Your task to perform on an android device: Open Youtube and go to "Your channel" Image 0: 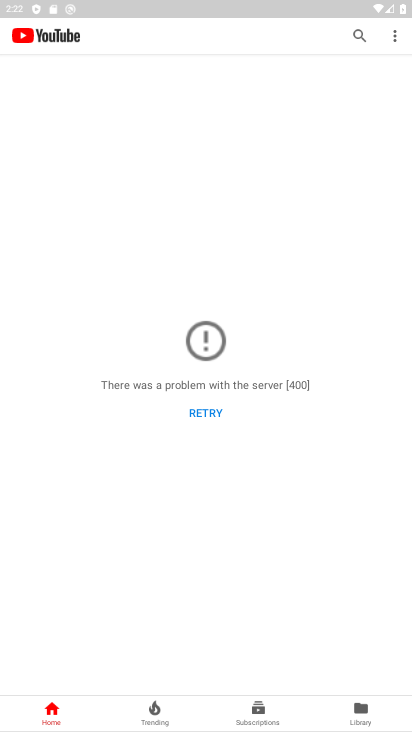
Step 0: press home button
Your task to perform on an android device: Open Youtube and go to "Your channel" Image 1: 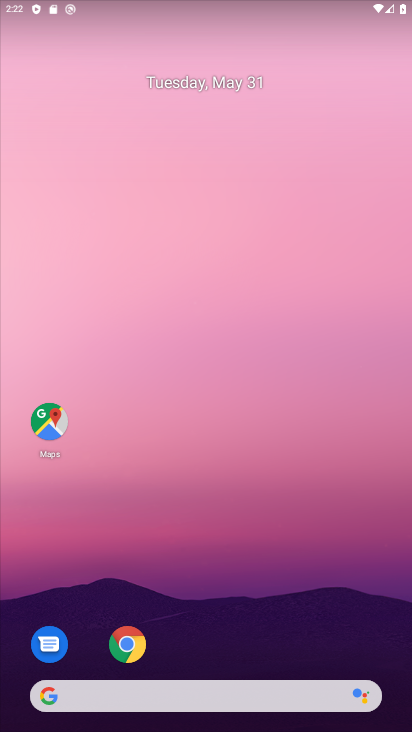
Step 1: drag from (280, 661) to (245, 88)
Your task to perform on an android device: Open Youtube and go to "Your channel" Image 2: 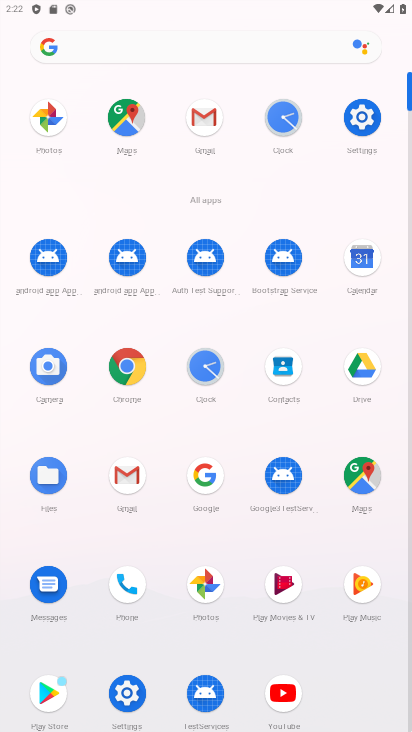
Step 2: click (274, 693)
Your task to perform on an android device: Open Youtube and go to "Your channel" Image 3: 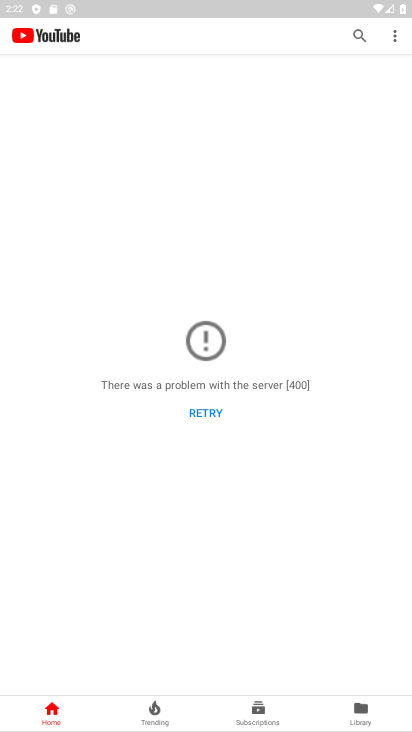
Step 3: click (392, 36)
Your task to perform on an android device: Open Youtube and go to "Your channel" Image 4: 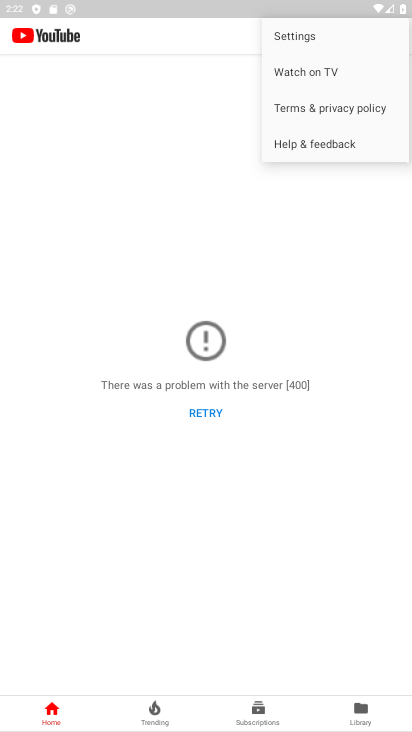
Step 4: click (206, 411)
Your task to perform on an android device: Open Youtube and go to "Your channel" Image 5: 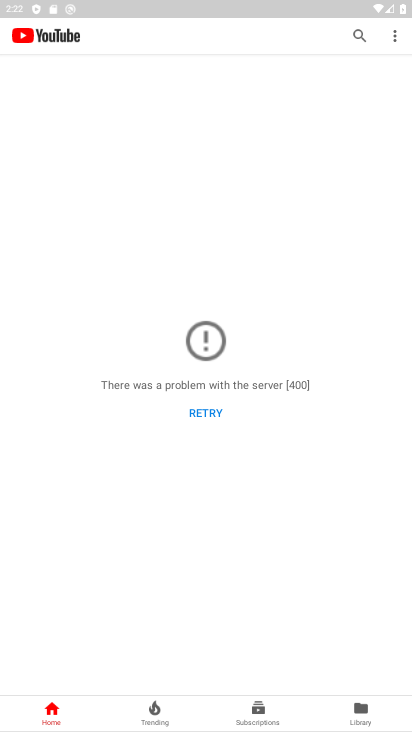
Step 5: drag from (231, 46) to (207, 424)
Your task to perform on an android device: Open Youtube and go to "Your channel" Image 6: 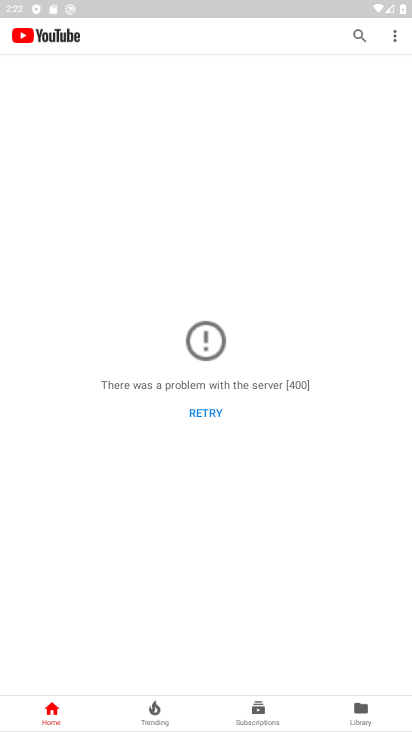
Step 6: drag from (216, 9) to (188, 586)
Your task to perform on an android device: Open Youtube and go to "Your channel" Image 7: 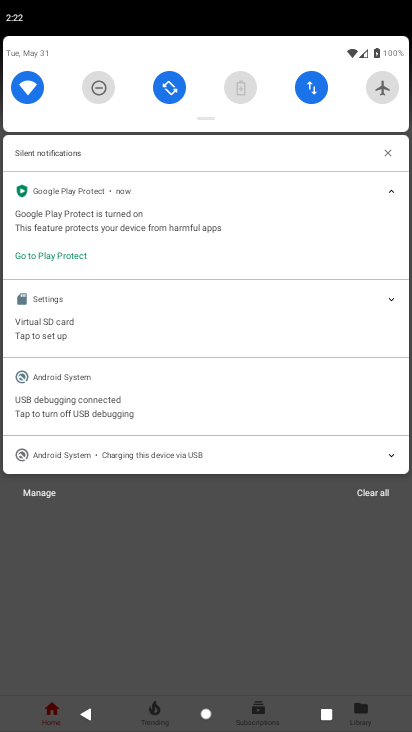
Step 7: drag from (188, 615) to (222, 97)
Your task to perform on an android device: Open Youtube and go to "Your channel" Image 8: 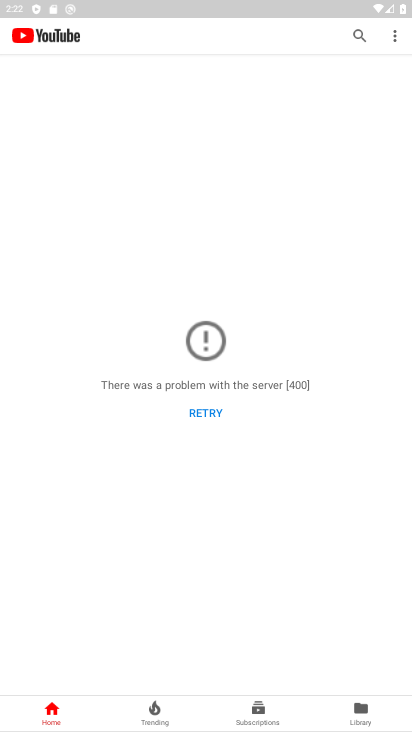
Step 8: click (52, 721)
Your task to perform on an android device: Open Youtube and go to "Your channel" Image 9: 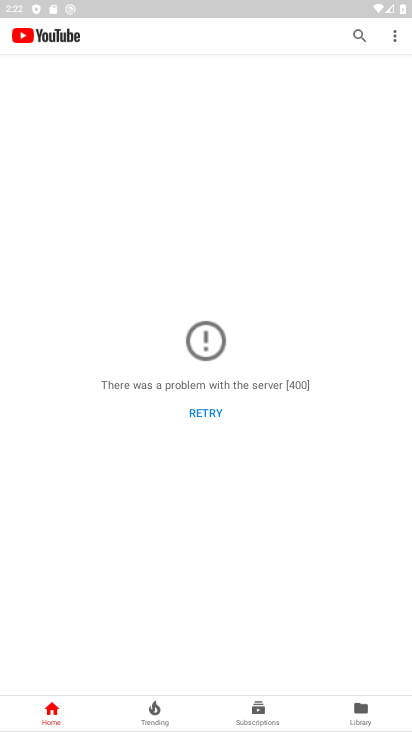
Step 9: click (363, 712)
Your task to perform on an android device: Open Youtube and go to "Your channel" Image 10: 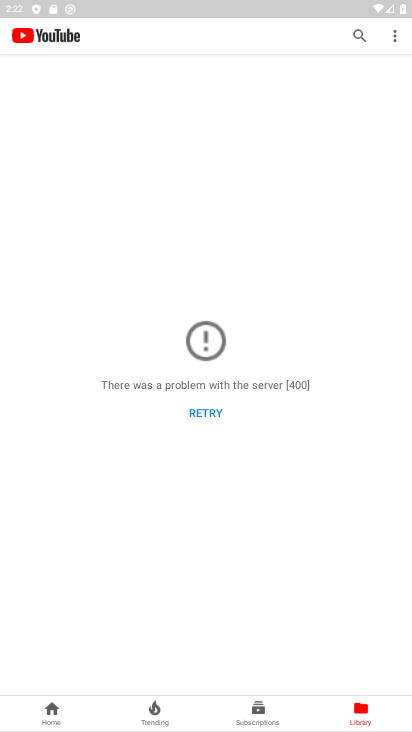
Step 10: click (357, 716)
Your task to perform on an android device: Open Youtube and go to "Your channel" Image 11: 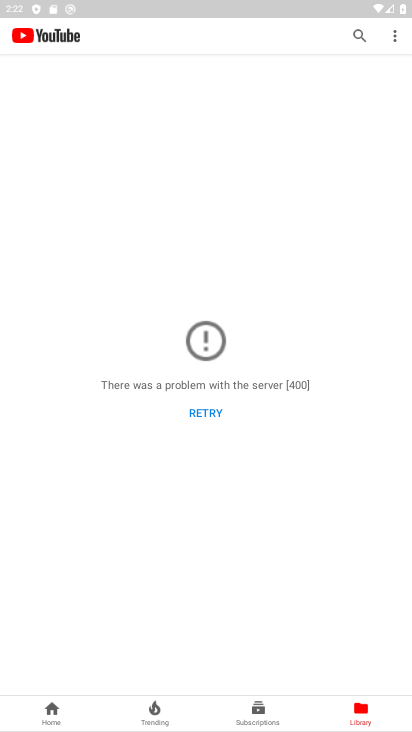
Step 11: click (194, 415)
Your task to perform on an android device: Open Youtube and go to "Your channel" Image 12: 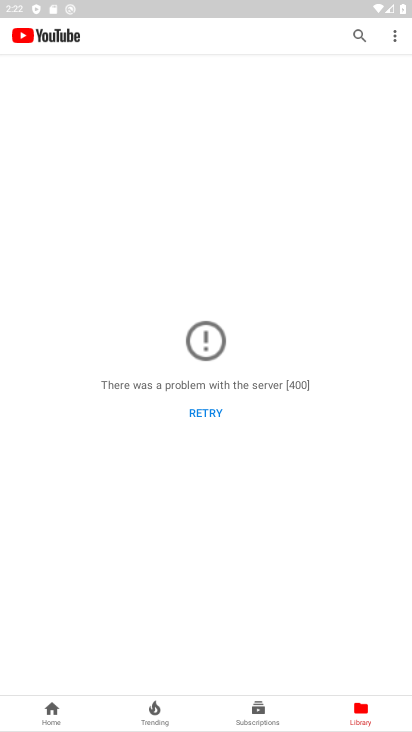
Step 12: click (206, 406)
Your task to perform on an android device: Open Youtube and go to "Your channel" Image 13: 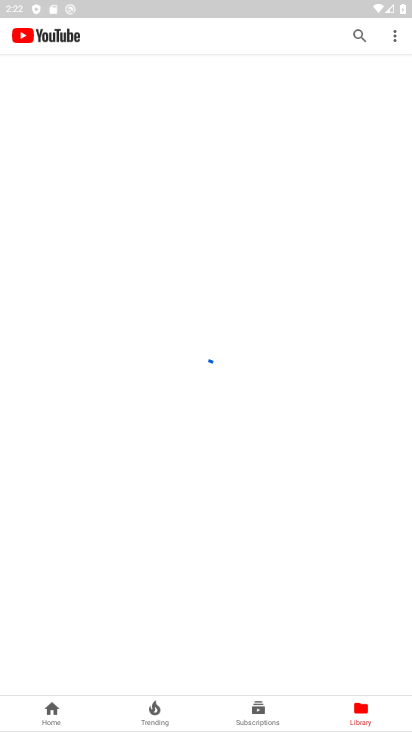
Step 13: click (206, 407)
Your task to perform on an android device: Open Youtube and go to "Your channel" Image 14: 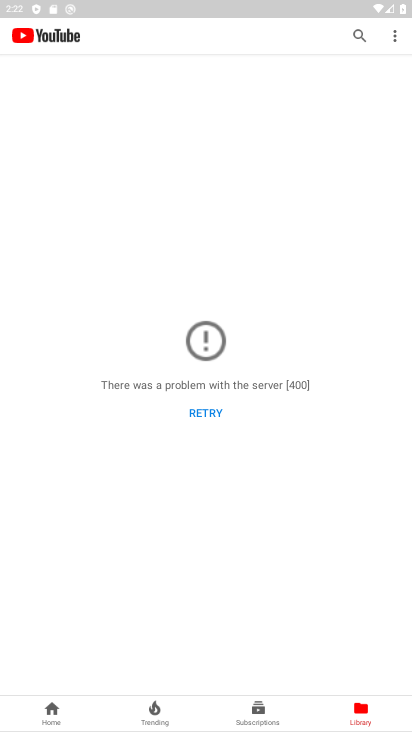
Step 14: click (206, 408)
Your task to perform on an android device: Open Youtube and go to "Your channel" Image 15: 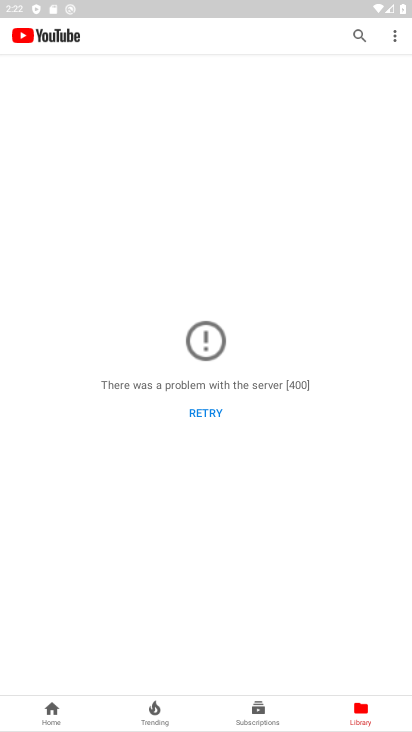
Step 15: task complete